Your task to perform on an android device: allow cookies in the chrome app Image 0: 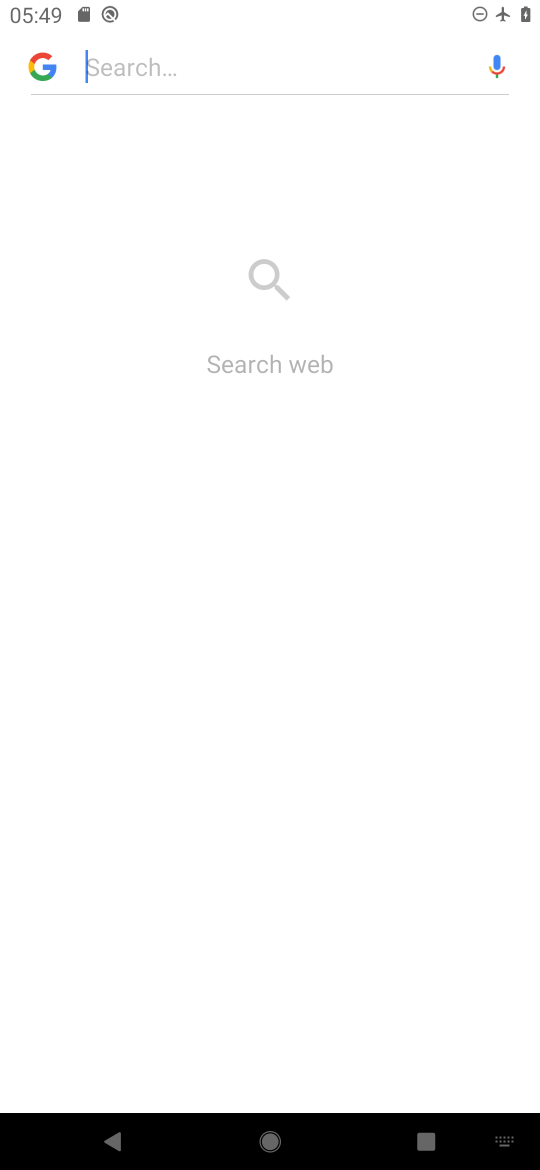
Step 0: press back button
Your task to perform on an android device: allow cookies in the chrome app Image 1: 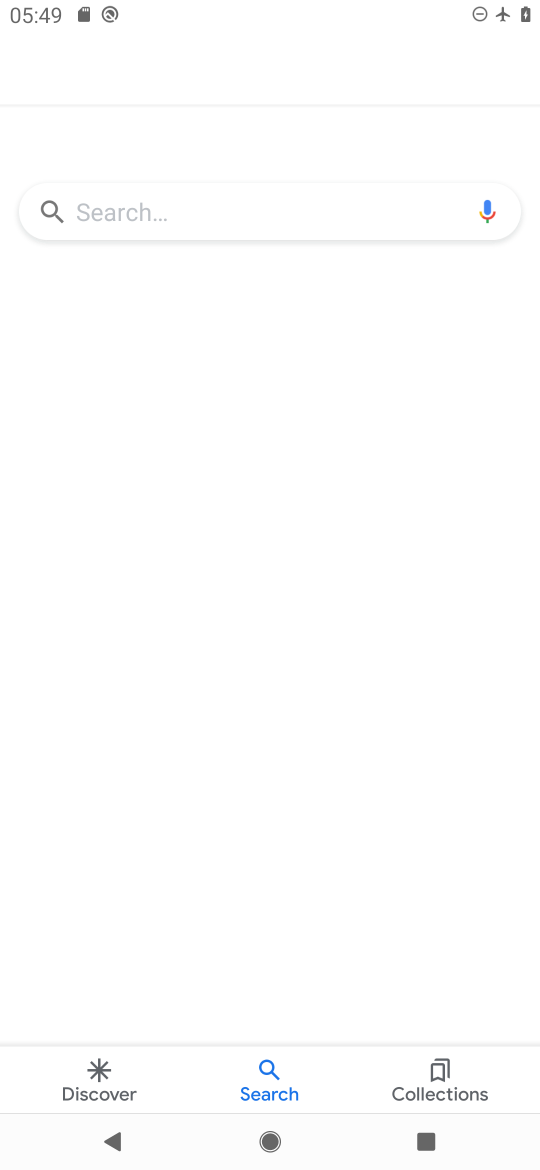
Step 1: press home button
Your task to perform on an android device: allow cookies in the chrome app Image 2: 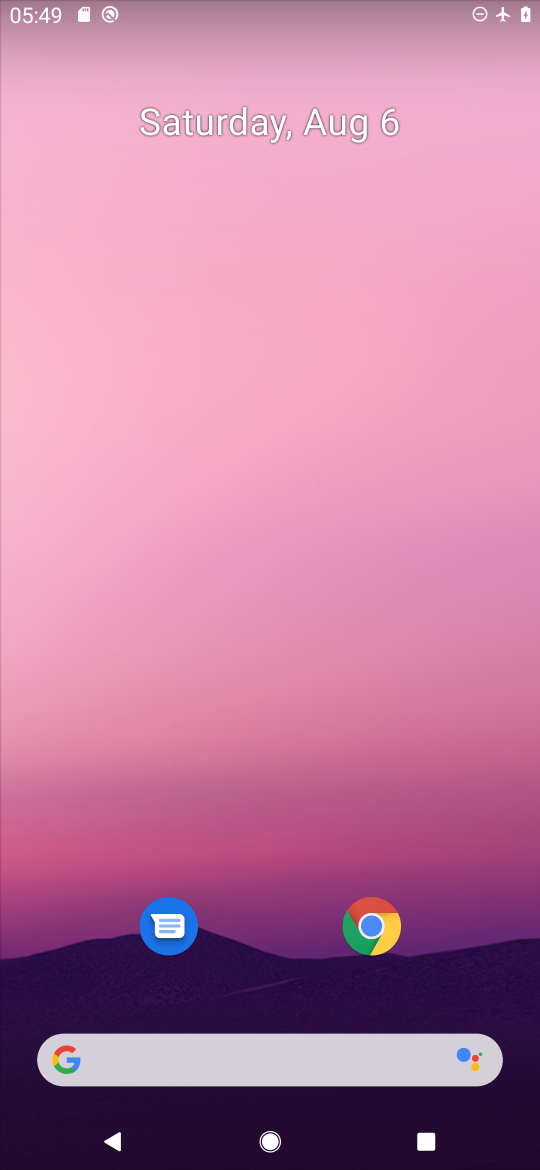
Step 2: click (389, 897)
Your task to perform on an android device: allow cookies in the chrome app Image 3: 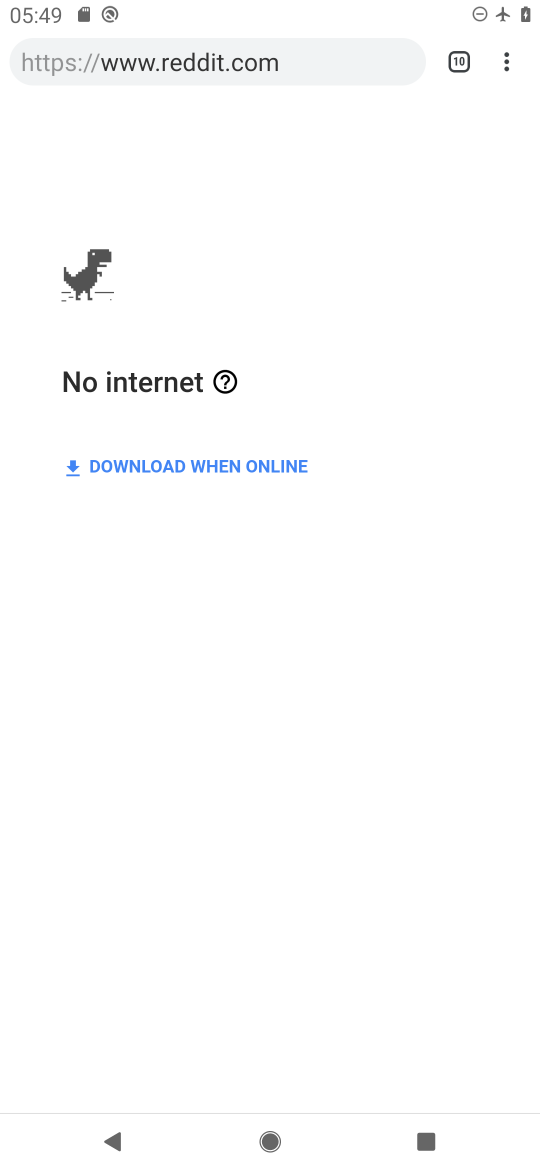
Step 3: click (496, 65)
Your task to perform on an android device: allow cookies in the chrome app Image 4: 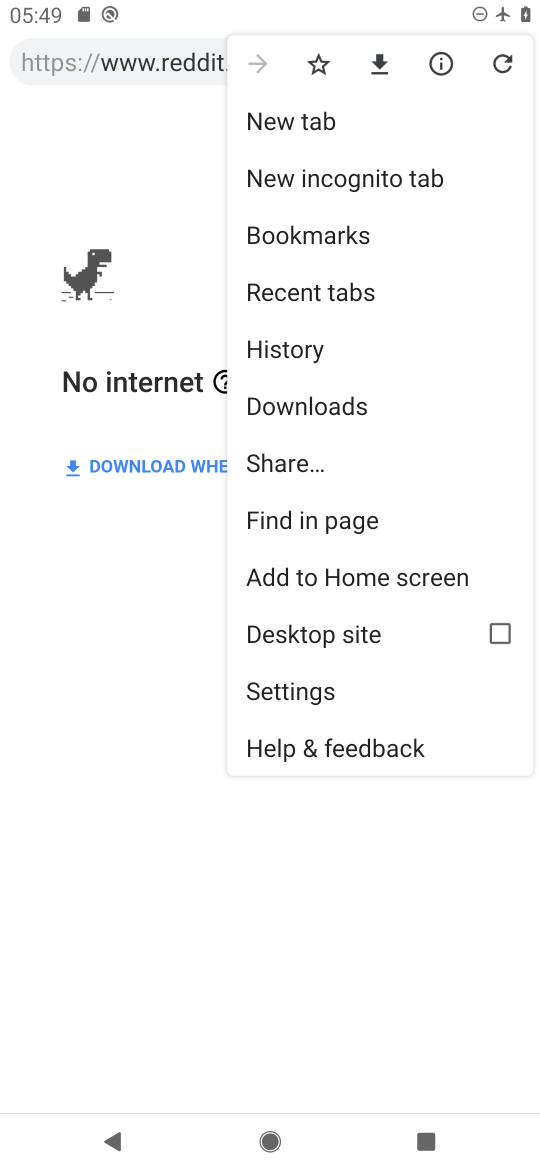
Step 4: click (309, 700)
Your task to perform on an android device: allow cookies in the chrome app Image 5: 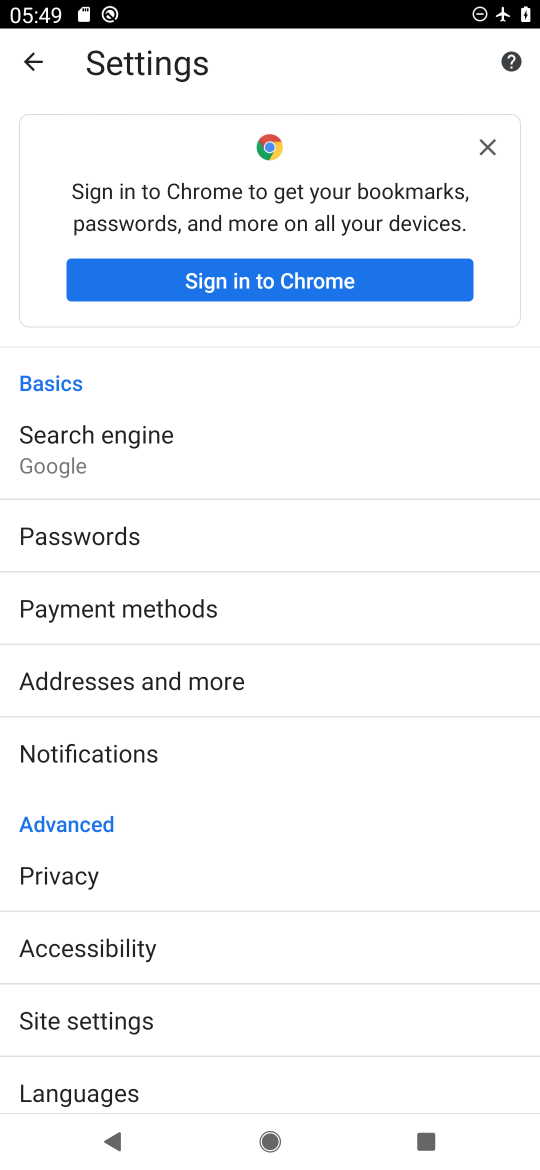
Step 5: click (177, 1018)
Your task to perform on an android device: allow cookies in the chrome app Image 6: 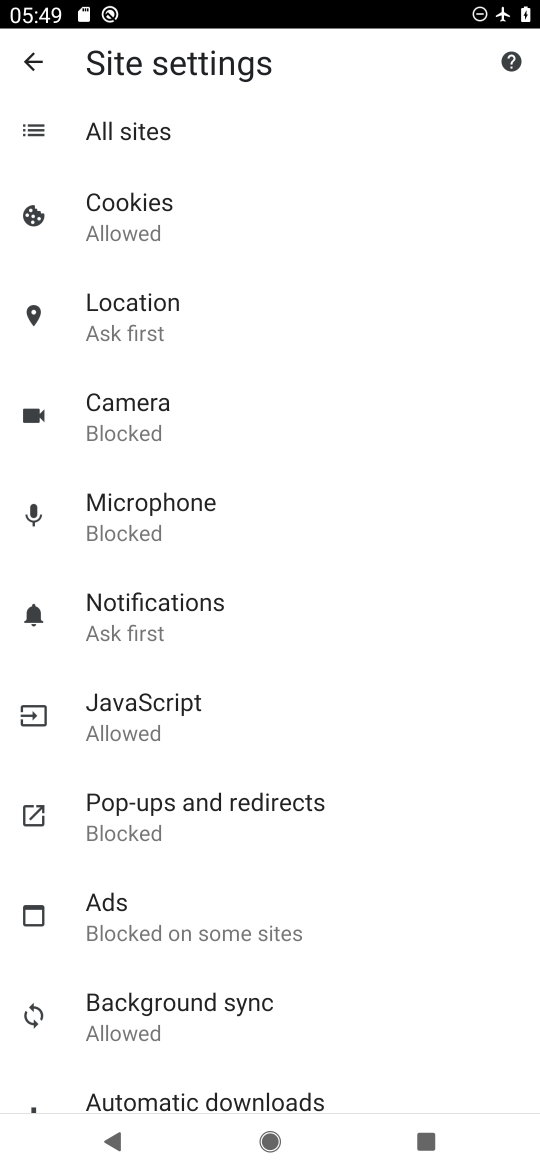
Step 6: click (127, 207)
Your task to perform on an android device: allow cookies in the chrome app Image 7: 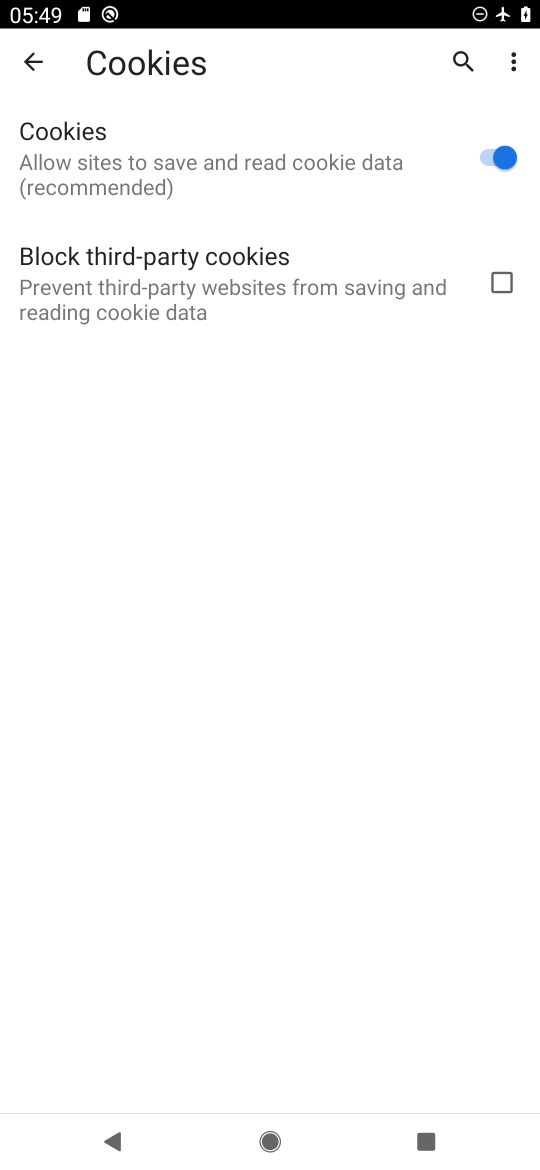
Step 7: task complete